Your task to perform on an android device: add a contact Image 0: 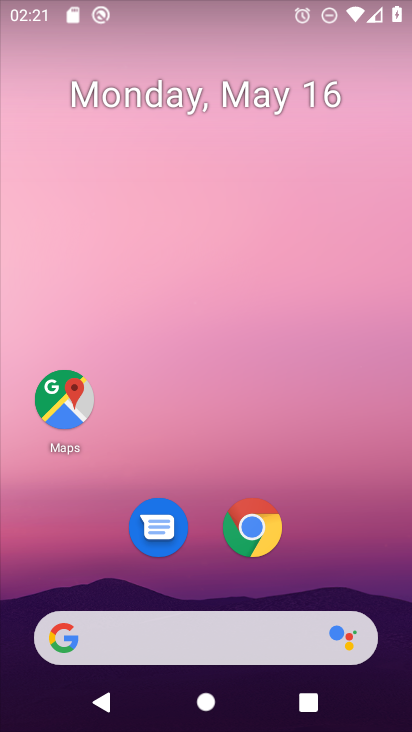
Step 0: drag from (355, 547) to (367, 69)
Your task to perform on an android device: add a contact Image 1: 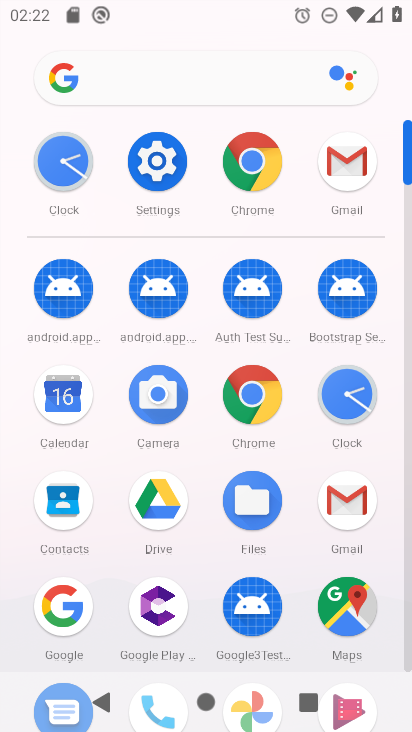
Step 1: click (53, 505)
Your task to perform on an android device: add a contact Image 2: 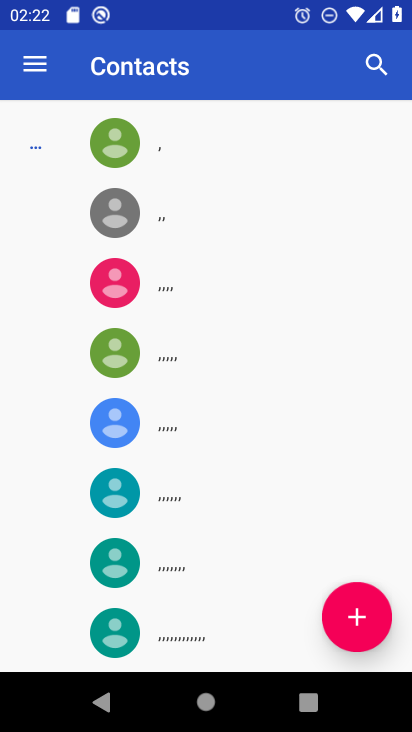
Step 2: click (366, 612)
Your task to perform on an android device: add a contact Image 3: 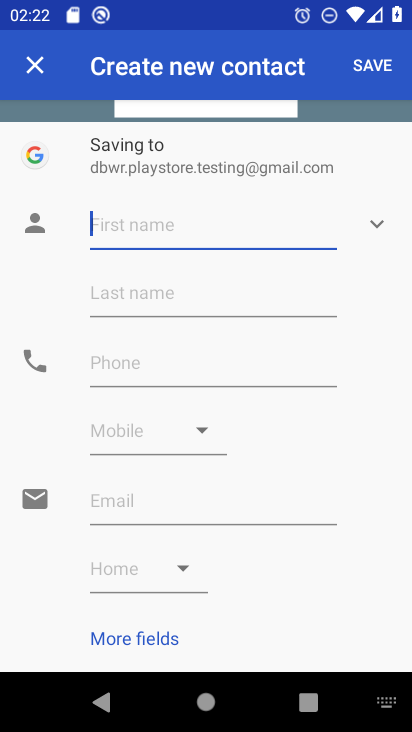
Step 3: type "asdas"
Your task to perform on an android device: add a contact Image 4: 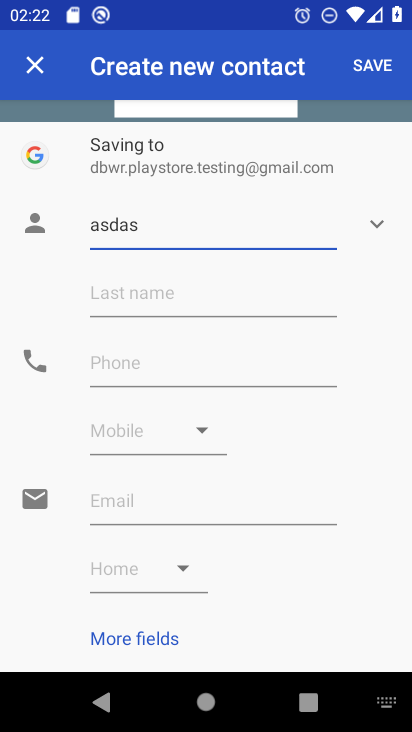
Step 4: click (204, 279)
Your task to perform on an android device: add a contact Image 5: 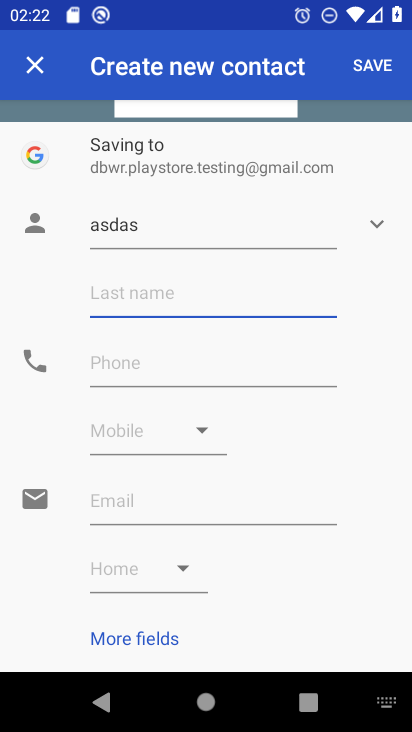
Step 5: type "acasc"
Your task to perform on an android device: add a contact Image 6: 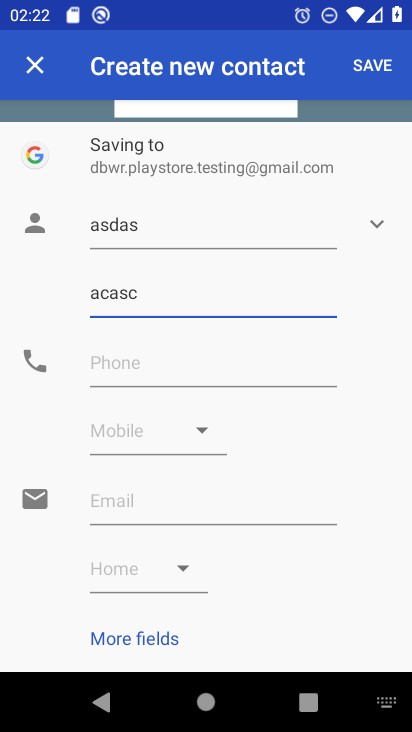
Step 6: click (287, 361)
Your task to perform on an android device: add a contact Image 7: 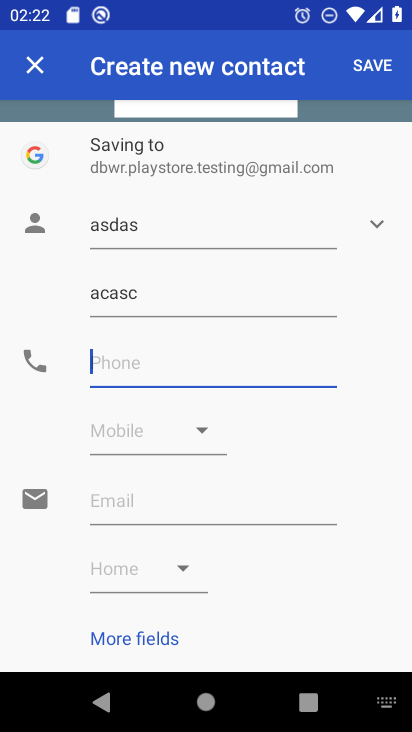
Step 7: type "2332e32"
Your task to perform on an android device: add a contact Image 8: 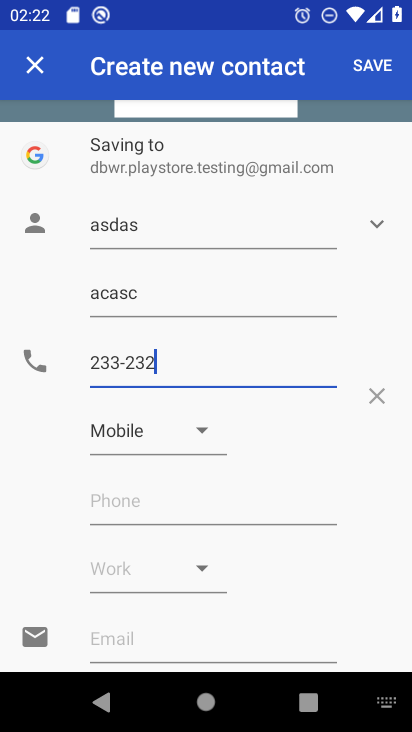
Step 8: click (358, 78)
Your task to perform on an android device: add a contact Image 9: 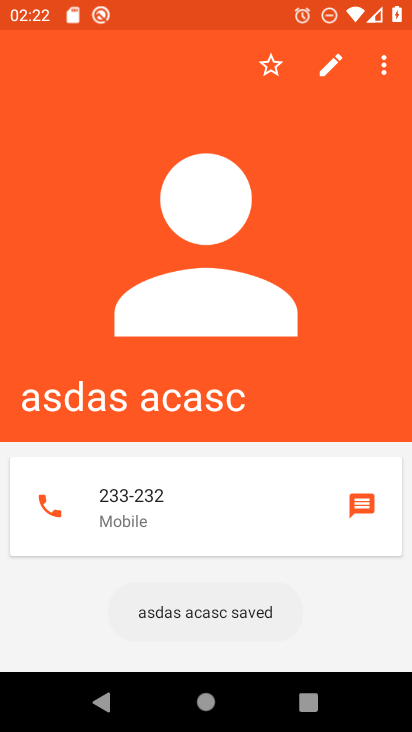
Step 9: task complete